Your task to perform on an android device: change alarm snooze length Image 0: 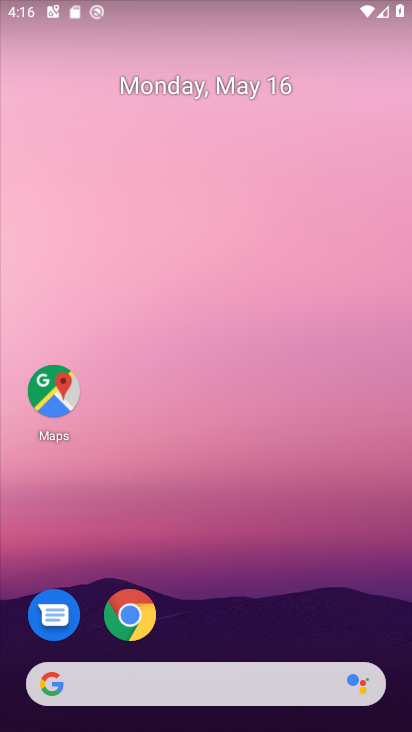
Step 0: drag from (267, 621) to (259, 100)
Your task to perform on an android device: change alarm snooze length Image 1: 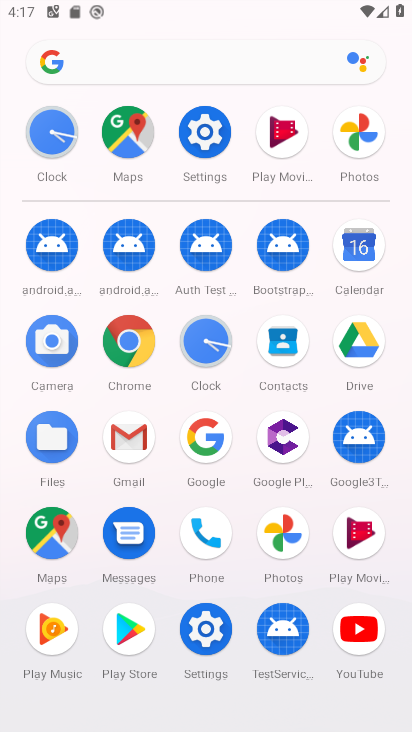
Step 1: click (201, 350)
Your task to perform on an android device: change alarm snooze length Image 2: 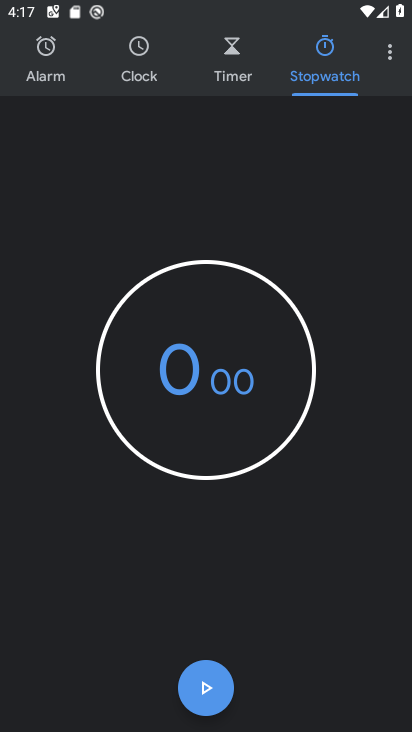
Step 2: click (391, 62)
Your task to perform on an android device: change alarm snooze length Image 3: 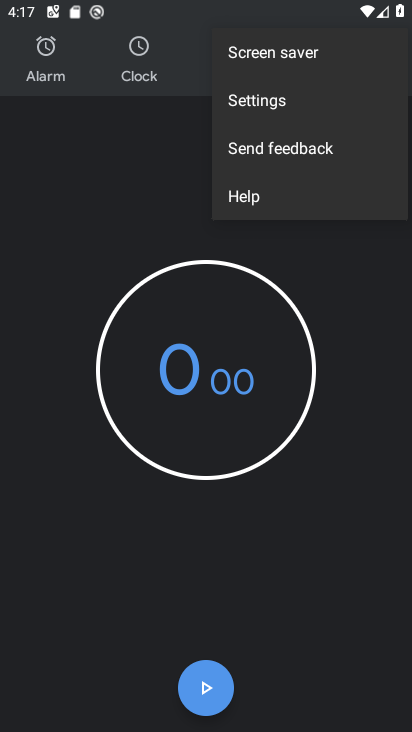
Step 3: click (288, 113)
Your task to perform on an android device: change alarm snooze length Image 4: 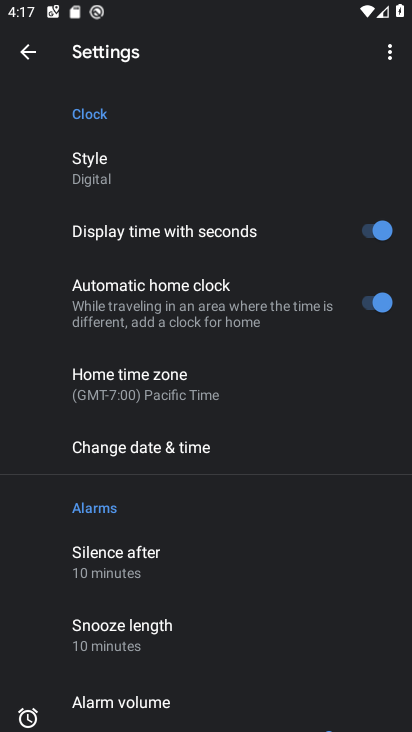
Step 4: click (138, 640)
Your task to perform on an android device: change alarm snooze length Image 5: 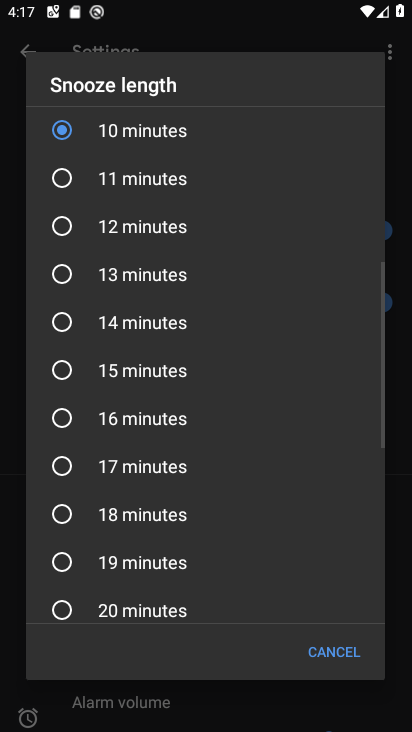
Step 5: click (80, 232)
Your task to perform on an android device: change alarm snooze length Image 6: 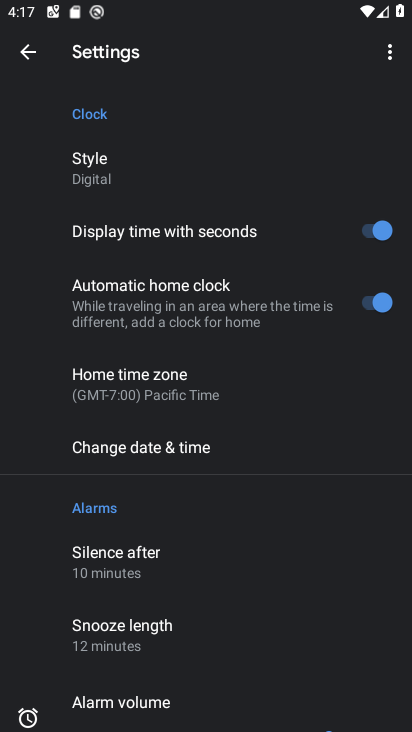
Step 6: task complete